Your task to perform on an android device: Go to settings Image 0: 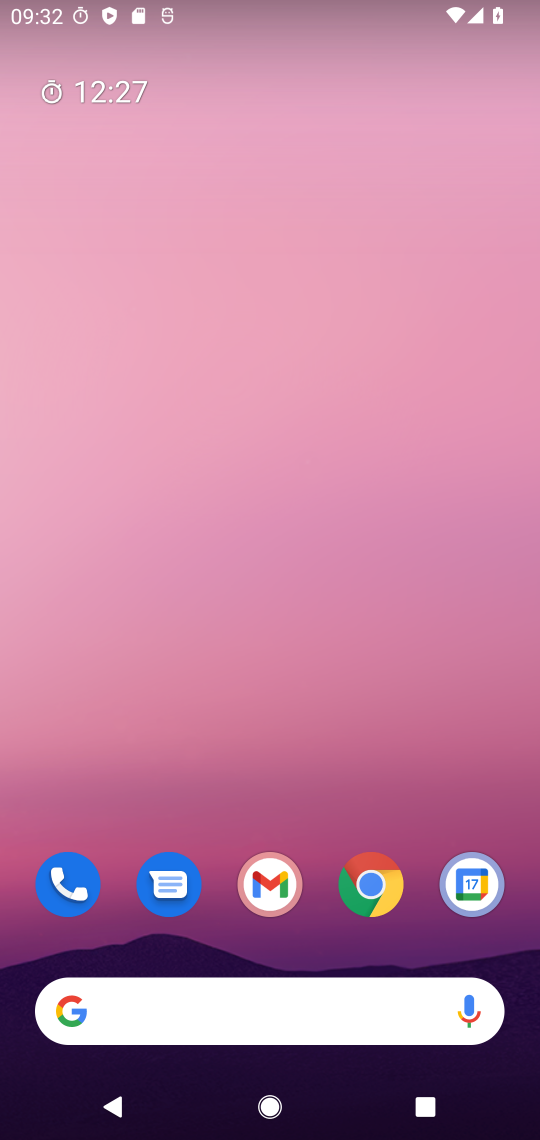
Step 0: drag from (227, 807) to (197, 159)
Your task to perform on an android device: Go to settings Image 1: 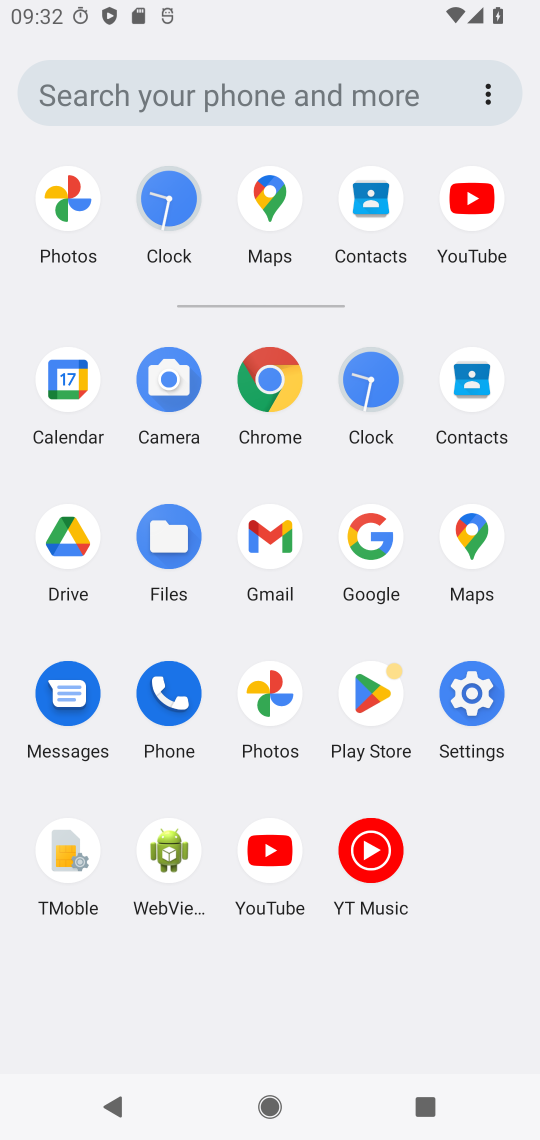
Step 1: click (494, 681)
Your task to perform on an android device: Go to settings Image 2: 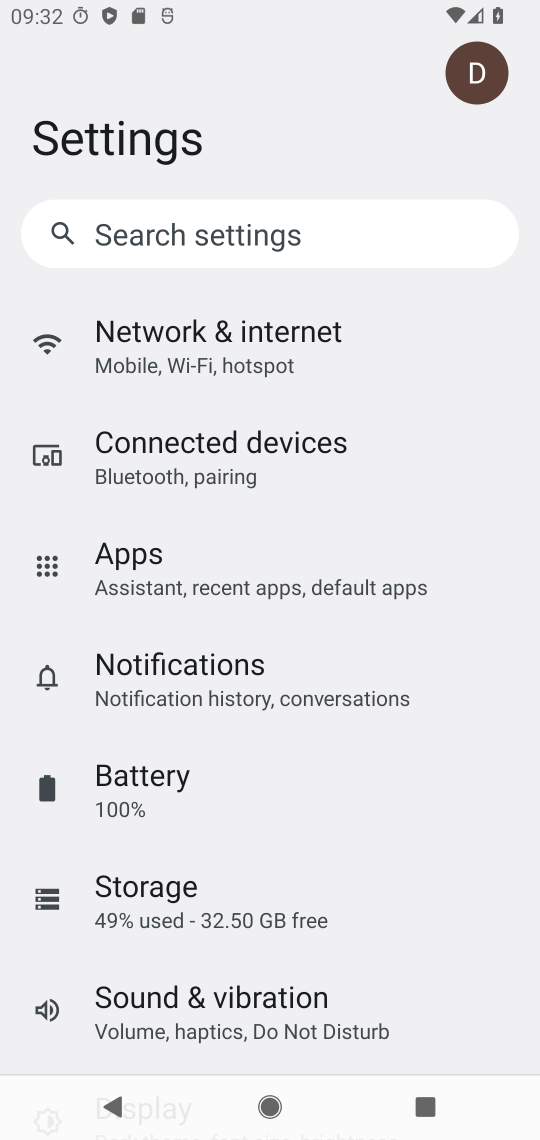
Step 2: task complete